Your task to perform on an android device: Open Google Chrome and click the shortcut for Amazon.com Image 0: 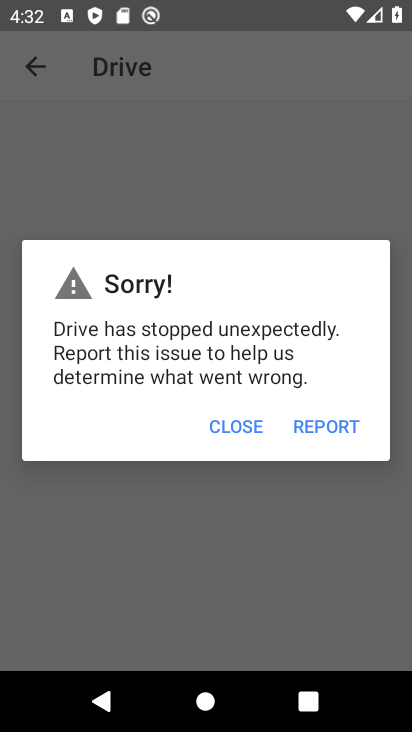
Step 0: press home button
Your task to perform on an android device: Open Google Chrome and click the shortcut for Amazon.com Image 1: 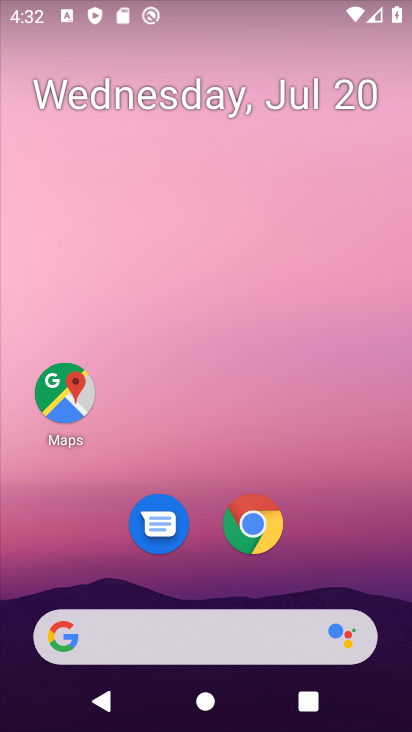
Step 1: click (255, 520)
Your task to perform on an android device: Open Google Chrome and click the shortcut for Amazon.com Image 2: 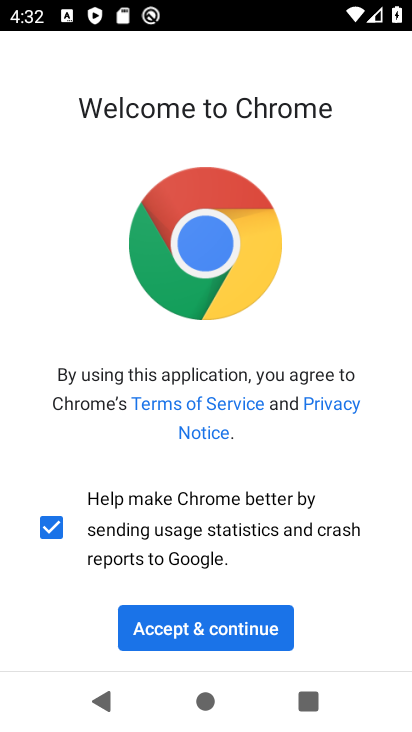
Step 2: click (257, 621)
Your task to perform on an android device: Open Google Chrome and click the shortcut for Amazon.com Image 3: 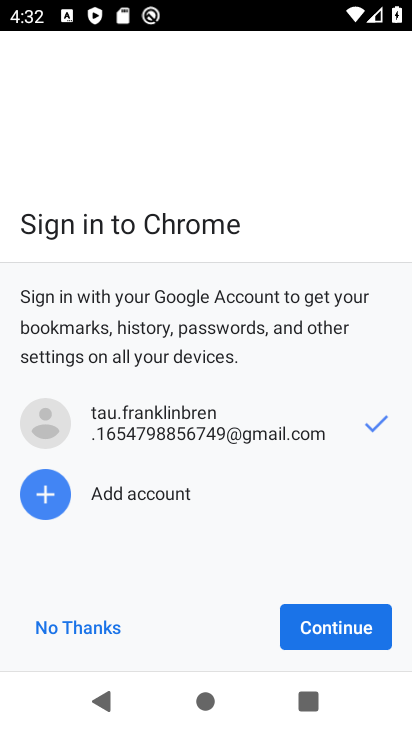
Step 3: click (301, 621)
Your task to perform on an android device: Open Google Chrome and click the shortcut for Amazon.com Image 4: 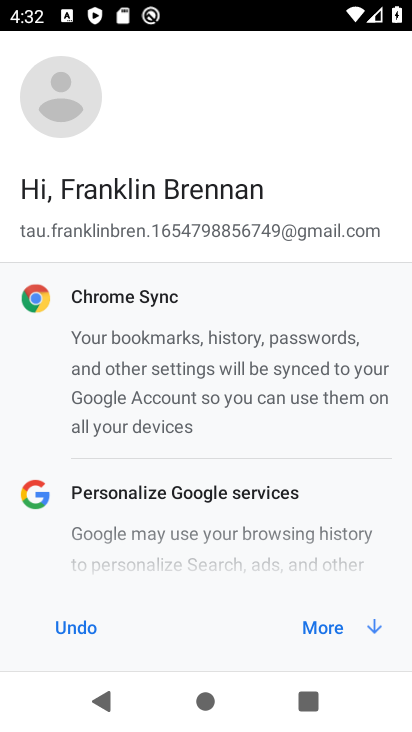
Step 4: click (315, 624)
Your task to perform on an android device: Open Google Chrome and click the shortcut for Amazon.com Image 5: 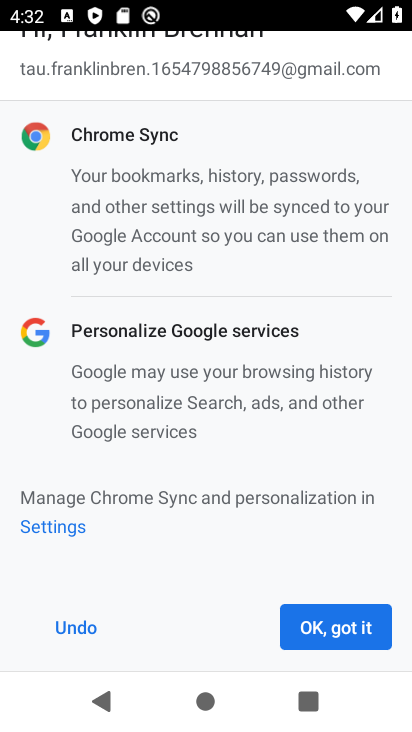
Step 5: click (315, 624)
Your task to perform on an android device: Open Google Chrome and click the shortcut for Amazon.com Image 6: 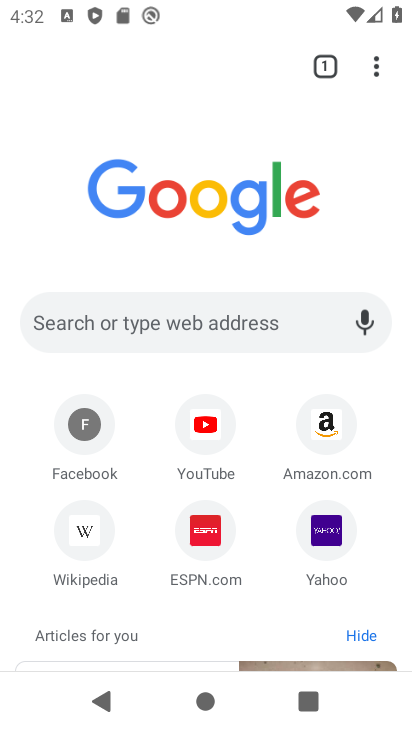
Step 6: click (328, 419)
Your task to perform on an android device: Open Google Chrome and click the shortcut for Amazon.com Image 7: 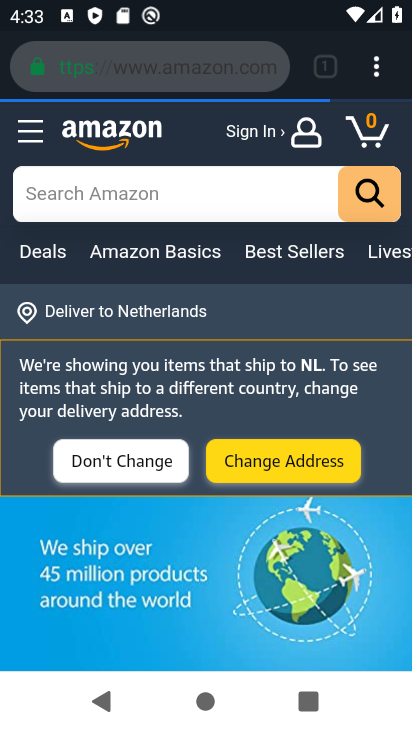
Step 7: task complete